Your task to perform on an android device: What is the recent news? Image 0: 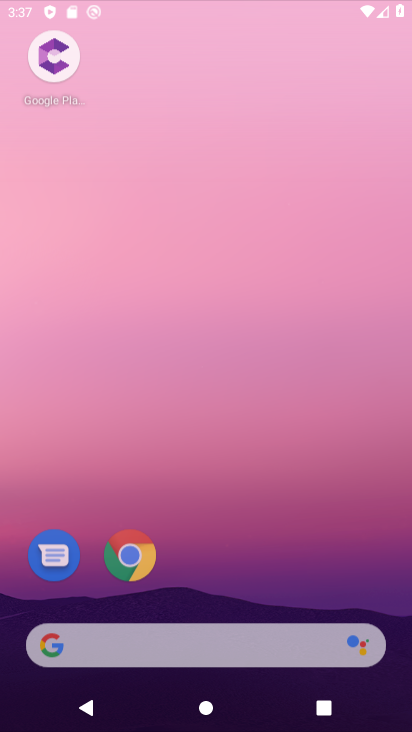
Step 0: drag from (198, 658) to (224, 182)
Your task to perform on an android device: What is the recent news? Image 1: 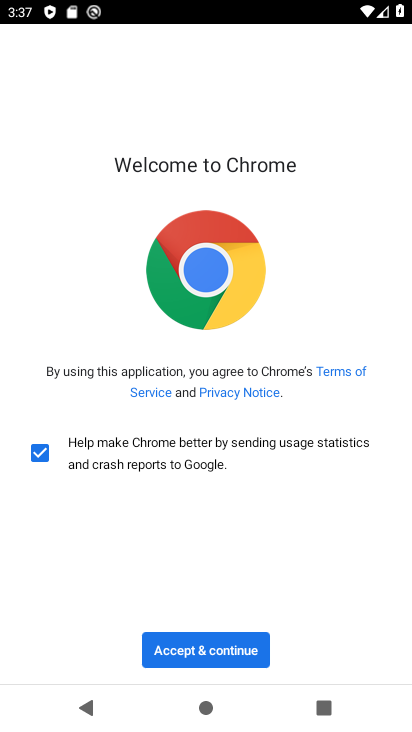
Step 1: task complete